Your task to perform on an android device: turn pop-ups off in chrome Image 0: 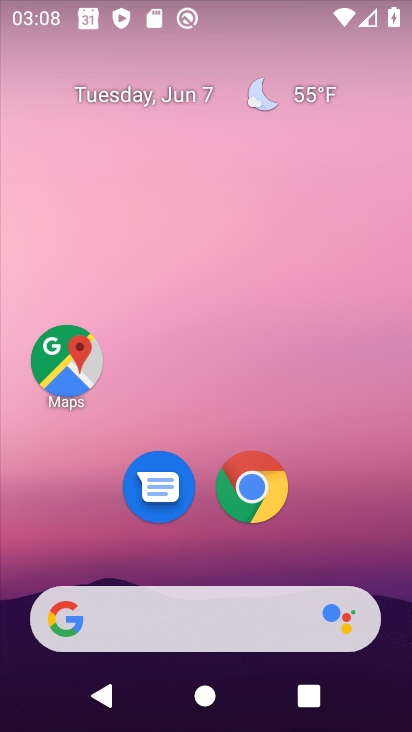
Step 0: drag from (231, 682) to (204, 292)
Your task to perform on an android device: turn pop-ups off in chrome Image 1: 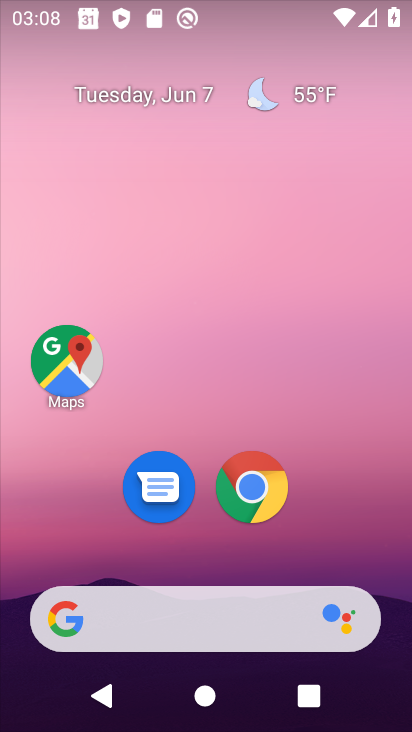
Step 1: drag from (232, 624) to (223, 304)
Your task to perform on an android device: turn pop-ups off in chrome Image 2: 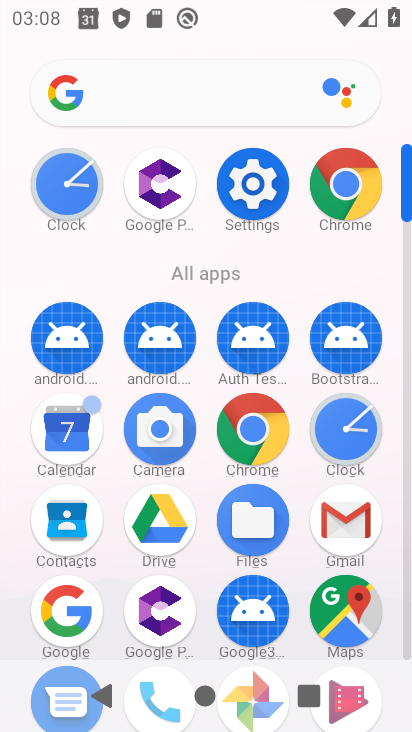
Step 2: click (356, 182)
Your task to perform on an android device: turn pop-ups off in chrome Image 3: 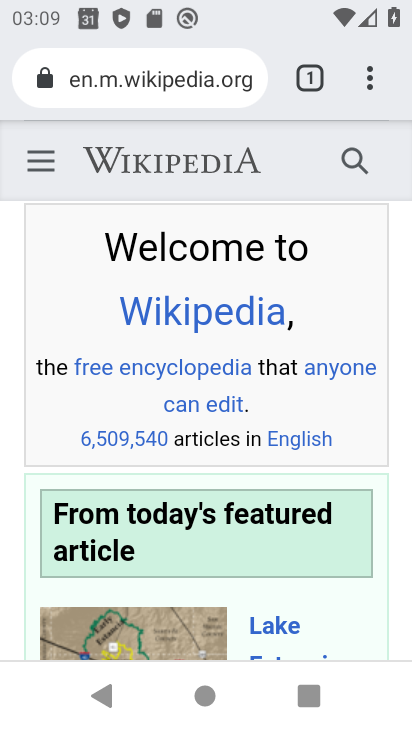
Step 3: press back button
Your task to perform on an android device: turn pop-ups off in chrome Image 4: 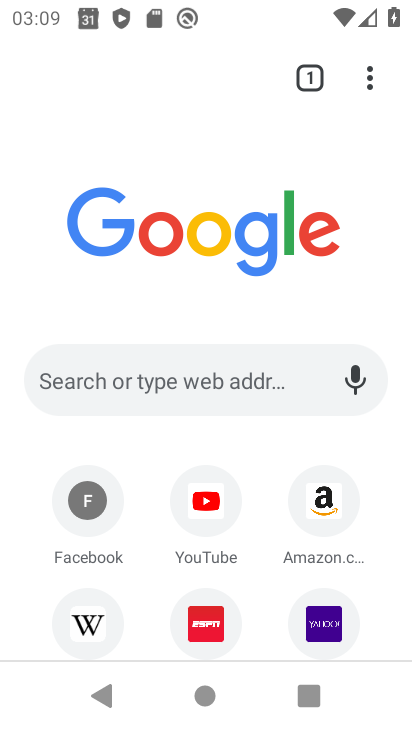
Step 4: press back button
Your task to perform on an android device: turn pop-ups off in chrome Image 5: 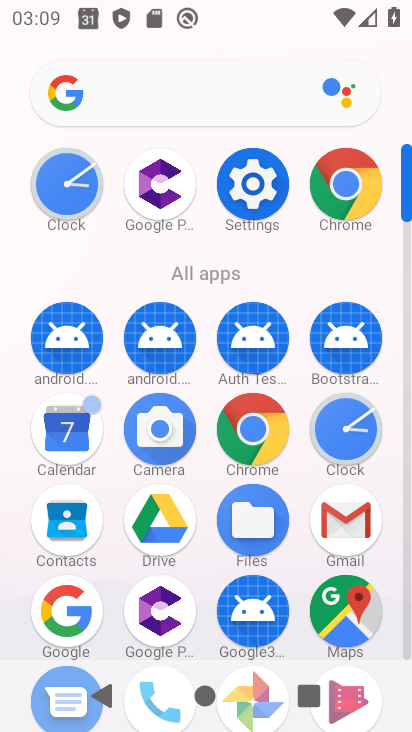
Step 5: click (347, 181)
Your task to perform on an android device: turn pop-ups off in chrome Image 6: 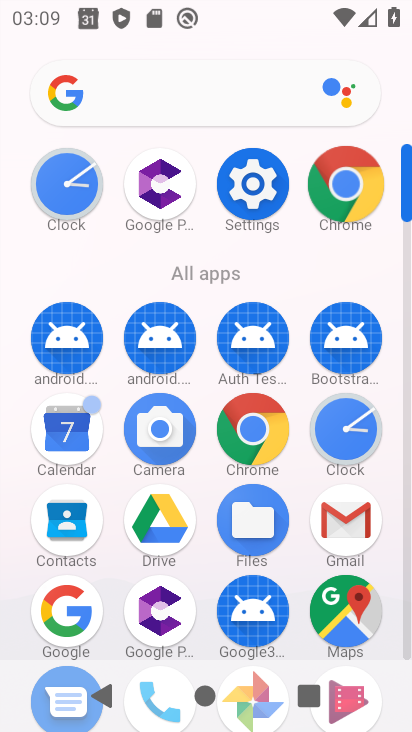
Step 6: click (347, 181)
Your task to perform on an android device: turn pop-ups off in chrome Image 7: 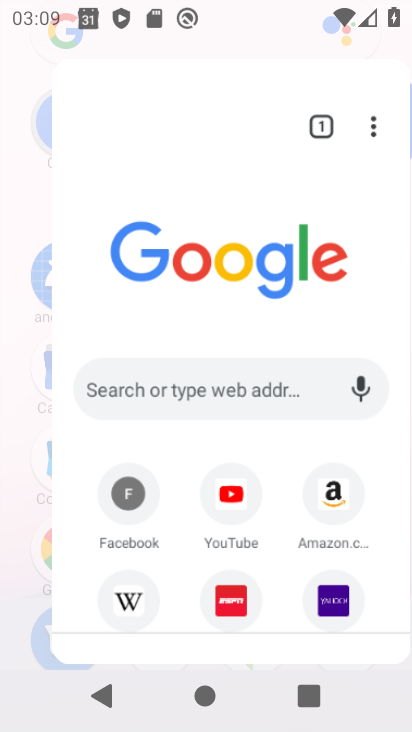
Step 7: click (344, 186)
Your task to perform on an android device: turn pop-ups off in chrome Image 8: 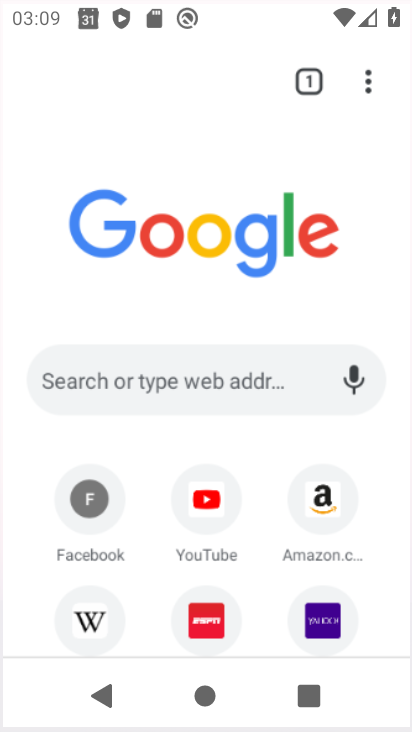
Step 8: click (344, 186)
Your task to perform on an android device: turn pop-ups off in chrome Image 9: 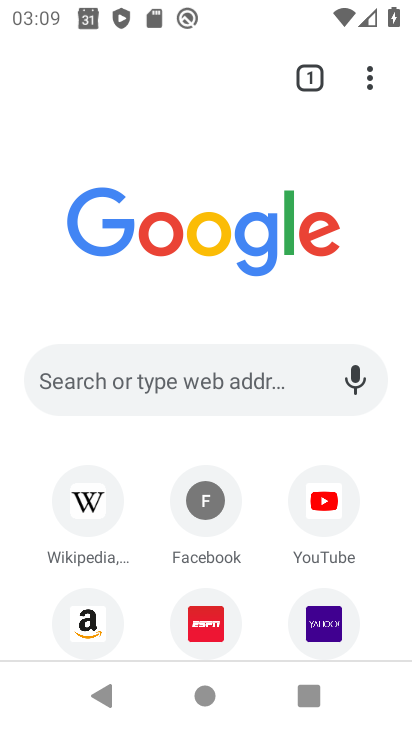
Step 9: drag from (365, 83) to (71, 557)
Your task to perform on an android device: turn pop-ups off in chrome Image 10: 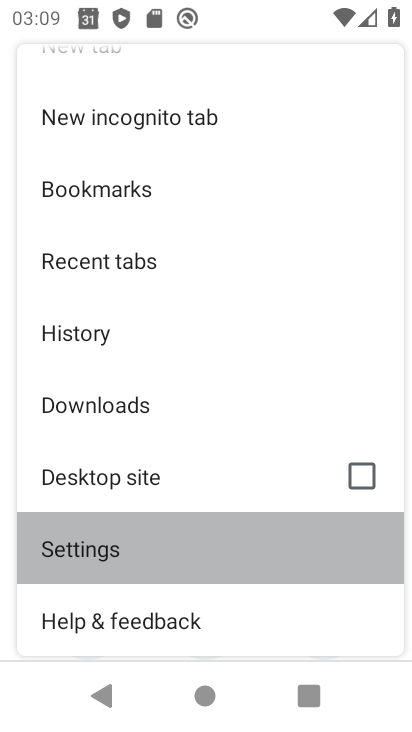
Step 10: click (70, 557)
Your task to perform on an android device: turn pop-ups off in chrome Image 11: 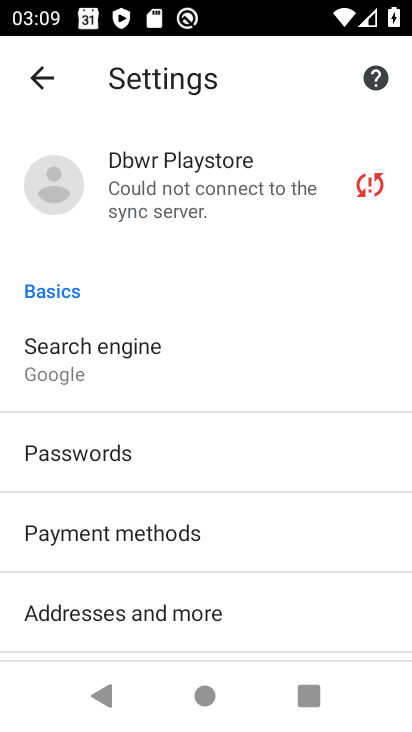
Step 11: drag from (175, 498) to (144, 173)
Your task to perform on an android device: turn pop-ups off in chrome Image 12: 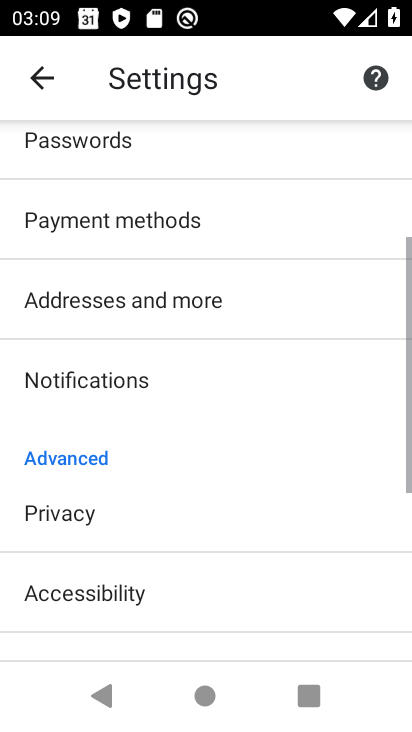
Step 12: drag from (179, 461) to (183, 148)
Your task to perform on an android device: turn pop-ups off in chrome Image 13: 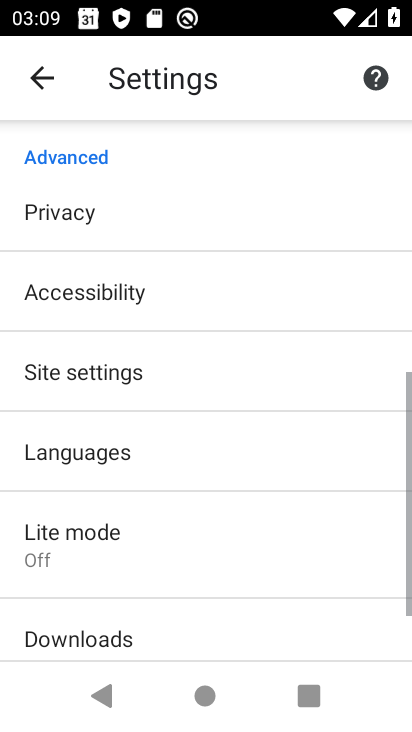
Step 13: drag from (168, 521) to (150, 236)
Your task to perform on an android device: turn pop-ups off in chrome Image 14: 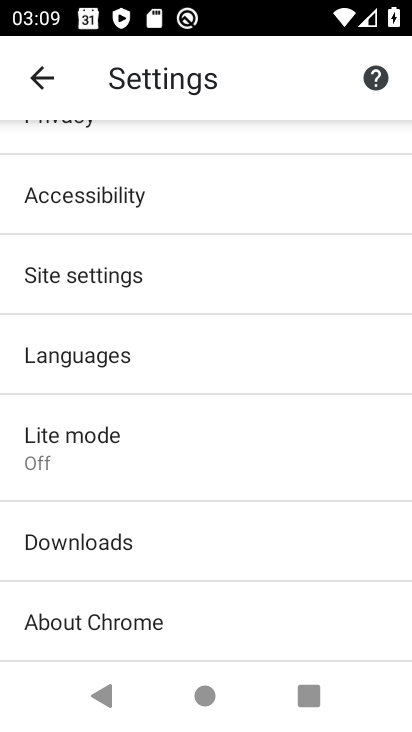
Step 14: click (74, 278)
Your task to perform on an android device: turn pop-ups off in chrome Image 15: 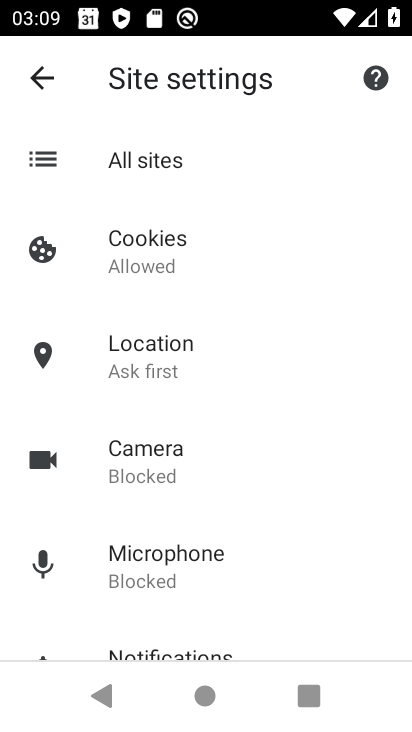
Step 15: drag from (178, 511) to (125, 128)
Your task to perform on an android device: turn pop-ups off in chrome Image 16: 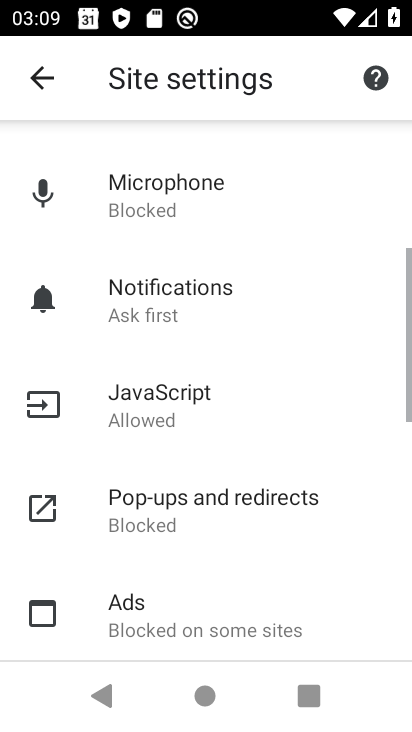
Step 16: drag from (136, 519) to (106, 215)
Your task to perform on an android device: turn pop-ups off in chrome Image 17: 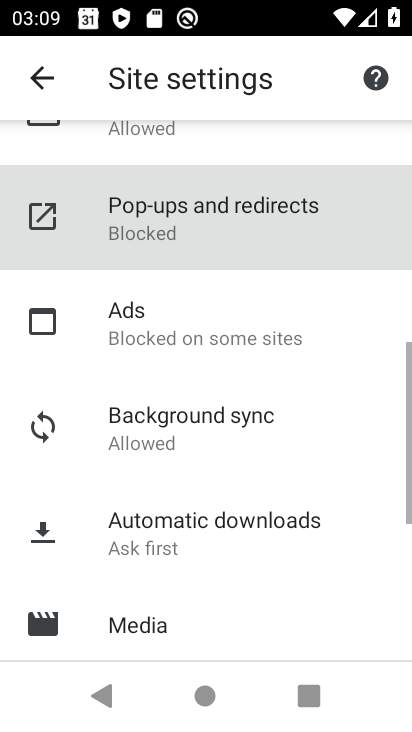
Step 17: drag from (208, 515) to (202, 278)
Your task to perform on an android device: turn pop-ups off in chrome Image 18: 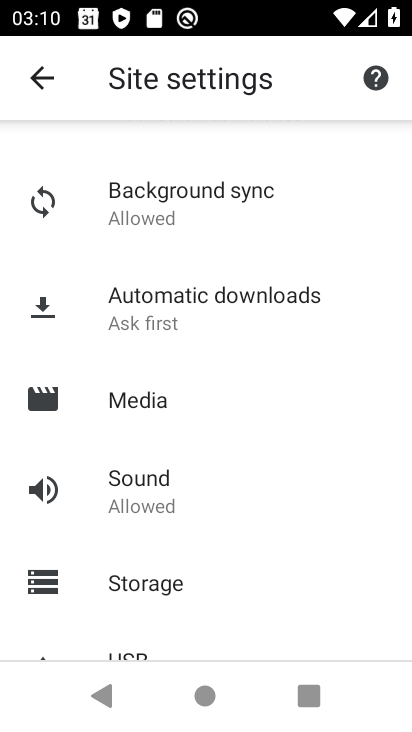
Step 18: drag from (140, 245) to (194, 622)
Your task to perform on an android device: turn pop-ups off in chrome Image 19: 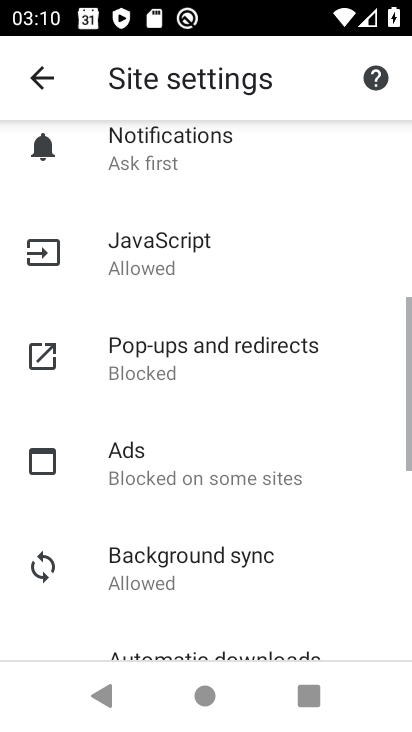
Step 19: drag from (154, 378) to (165, 606)
Your task to perform on an android device: turn pop-ups off in chrome Image 20: 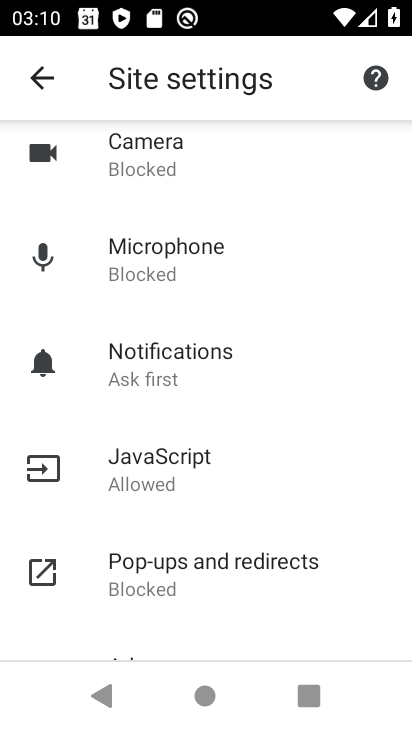
Step 20: click (147, 569)
Your task to perform on an android device: turn pop-ups off in chrome Image 21: 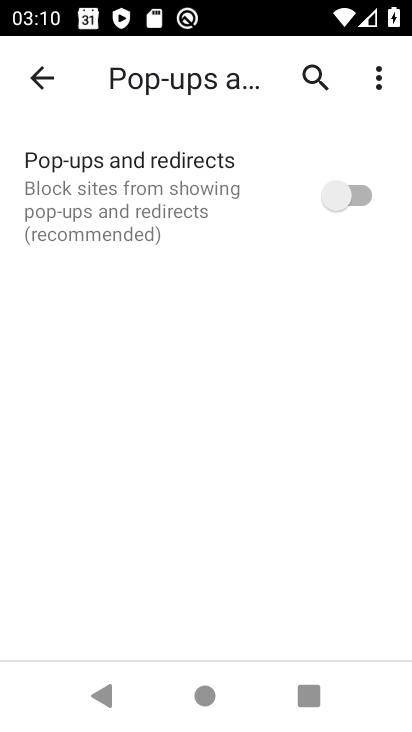
Step 21: task complete